Your task to perform on an android device: Open notification settings Image 0: 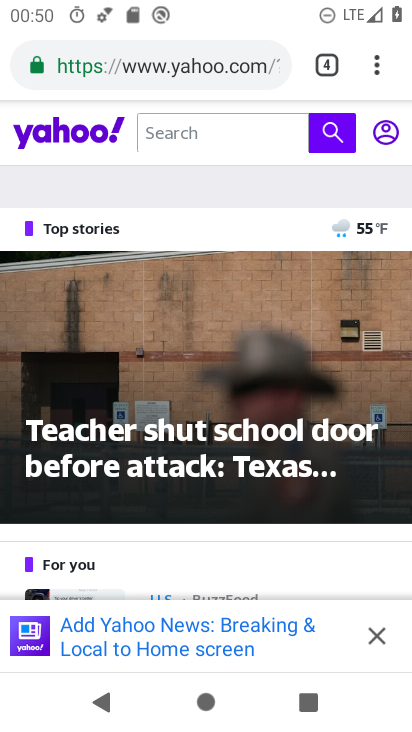
Step 0: drag from (206, 323) to (206, 128)
Your task to perform on an android device: Open notification settings Image 1: 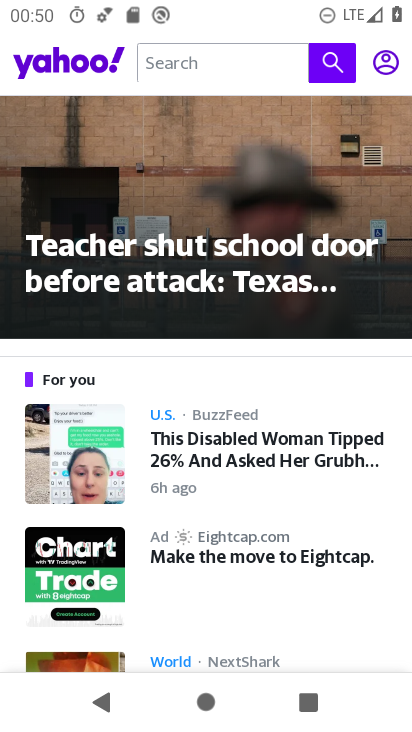
Step 1: press home button
Your task to perform on an android device: Open notification settings Image 2: 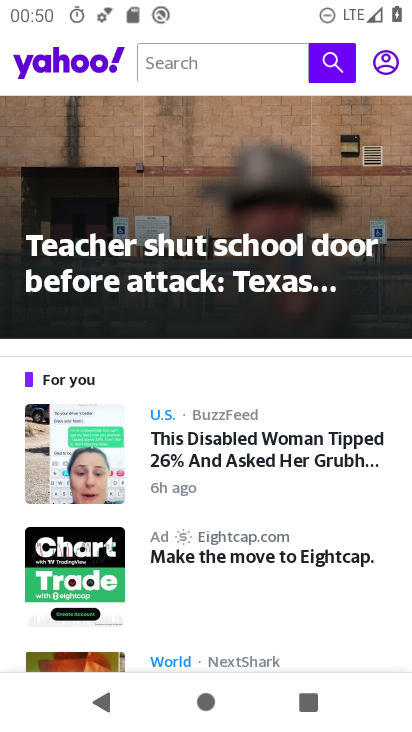
Step 2: drag from (218, 547) to (259, 268)
Your task to perform on an android device: Open notification settings Image 3: 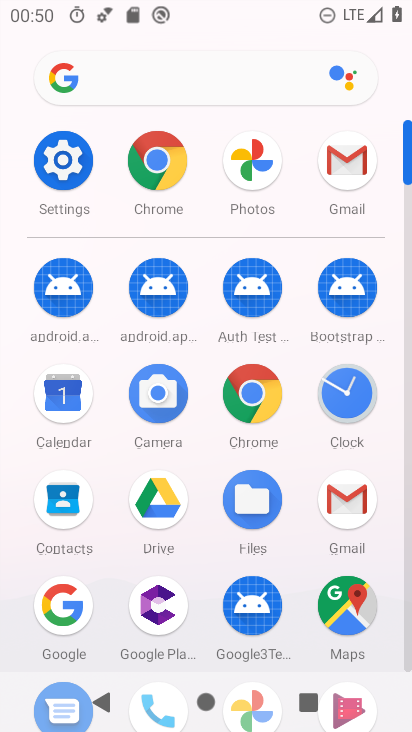
Step 3: click (67, 160)
Your task to perform on an android device: Open notification settings Image 4: 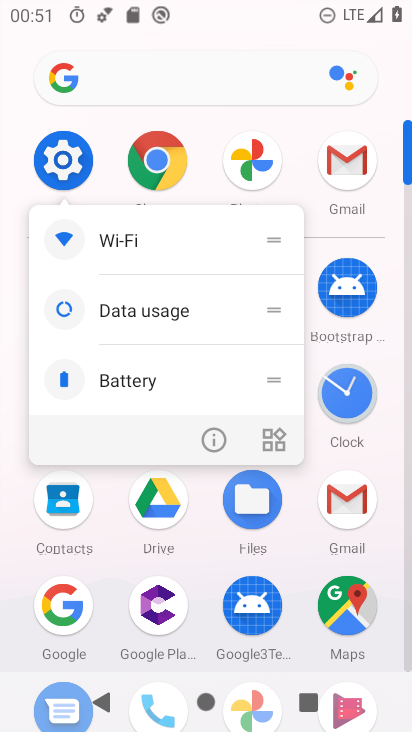
Step 4: click (210, 433)
Your task to perform on an android device: Open notification settings Image 5: 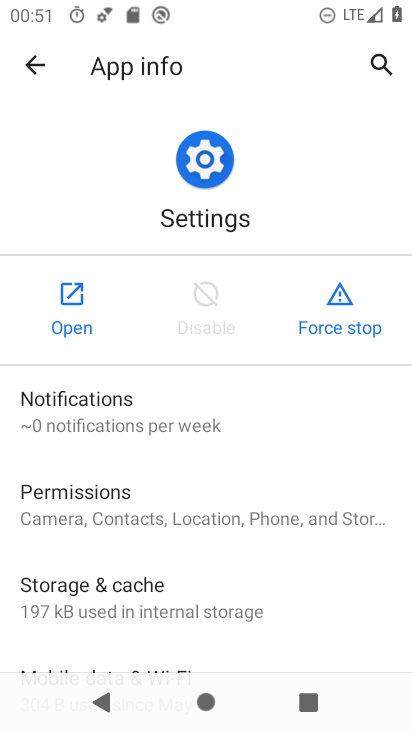
Step 5: click (103, 309)
Your task to perform on an android device: Open notification settings Image 6: 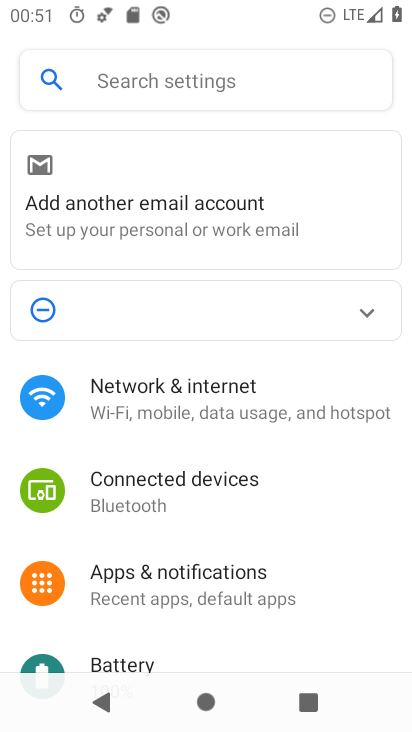
Step 6: click (192, 585)
Your task to perform on an android device: Open notification settings Image 7: 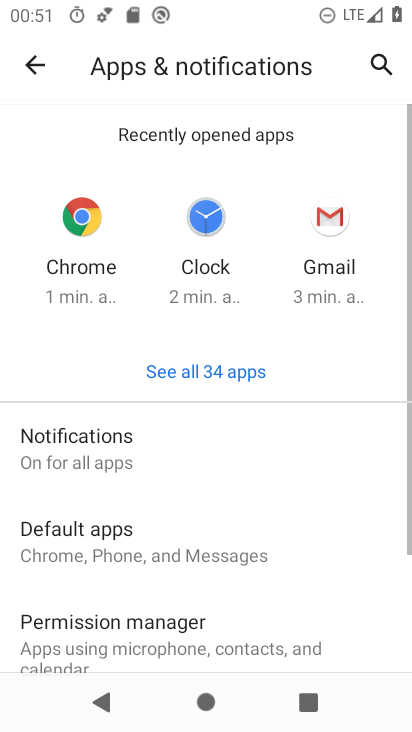
Step 7: click (146, 452)
Your task to perform on an android device: Open notification settings Image 8: 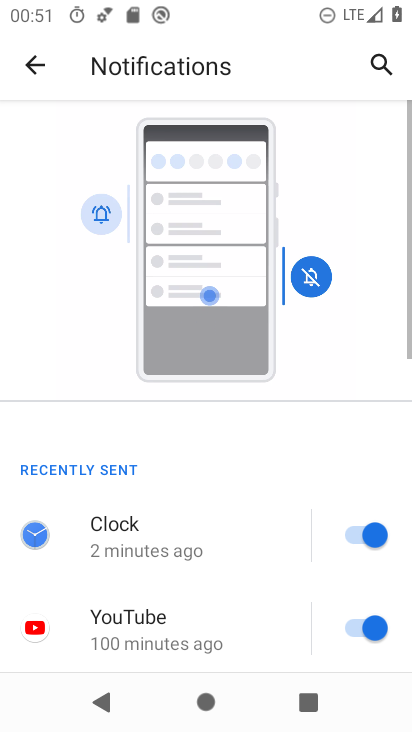
Step 8: task complete